Your task to perform on an android device: open chrome privacy settings Image 0: 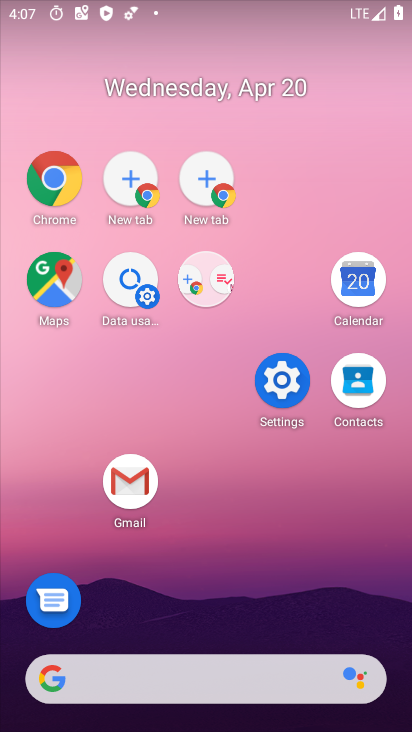
Step 0: click (263, 377)
Your task to perform on an android device: open chrome privacy settings Image 1: 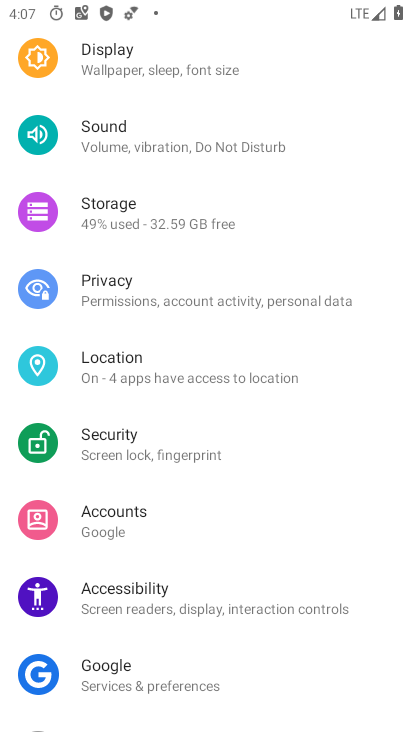
Step 1: drag from (298, 440) to (224, 274)
Your task to perform on an android device: open chrome privacy settings Image 2: 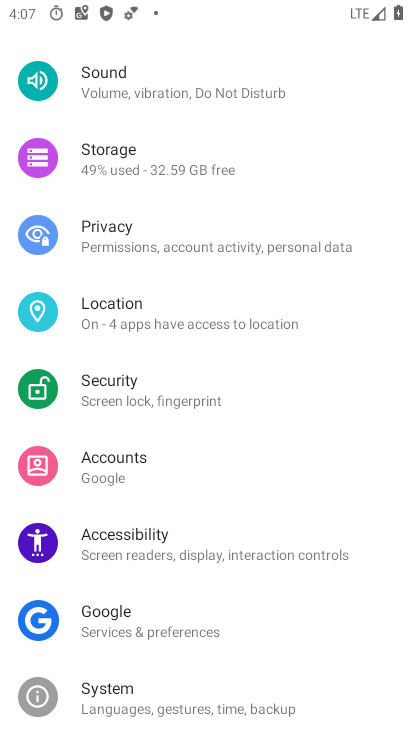
Step 2: drag from (122, 579) to (105, 365)
Your task to perform on an android device: open chrome privacy settings Image 3: 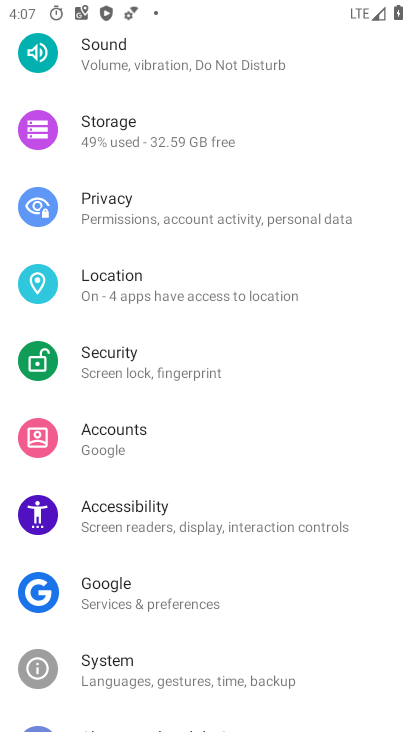
Step 3: press home button
Your task to perform on an android device: open chrome privacy settings Image 4: 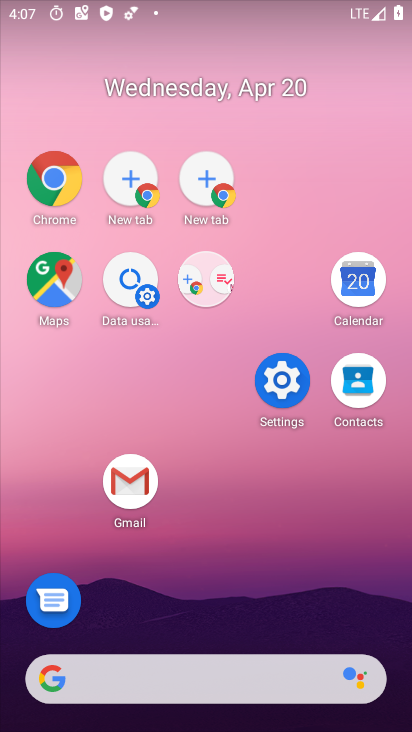
Step 4: click (58, 169)
Your task to perform on an android device: open chrome privacy settings Image 5: 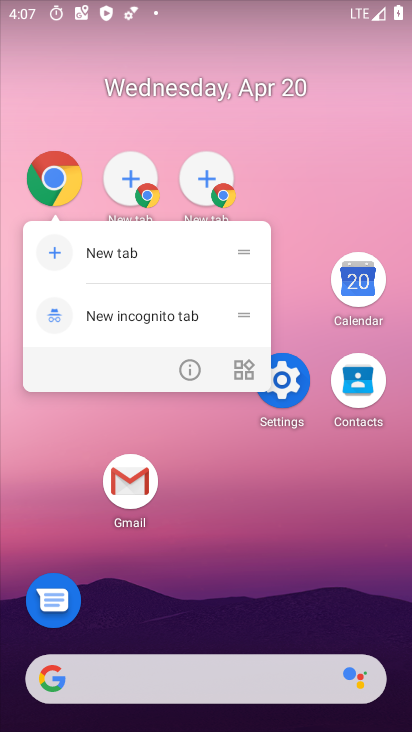
Step 5: click (69, 184)
Your task to perform on an android device: open chrome privacy settings Image 6: 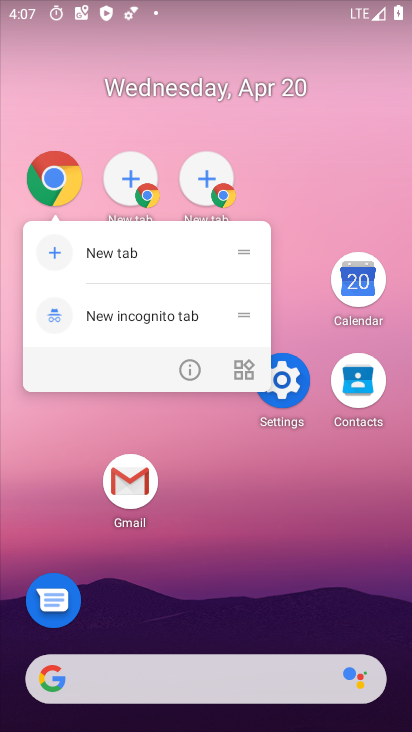
Step 6: click (107, 248)
Your task to perform on an android device: open chrome privacy settings Image 7: 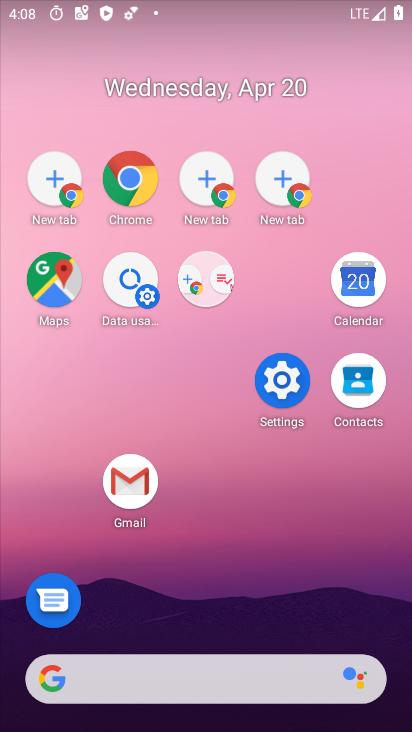
Step 7: click (125, 176)
Your task to perform on an android device: open chrome privacy settings Image 8: 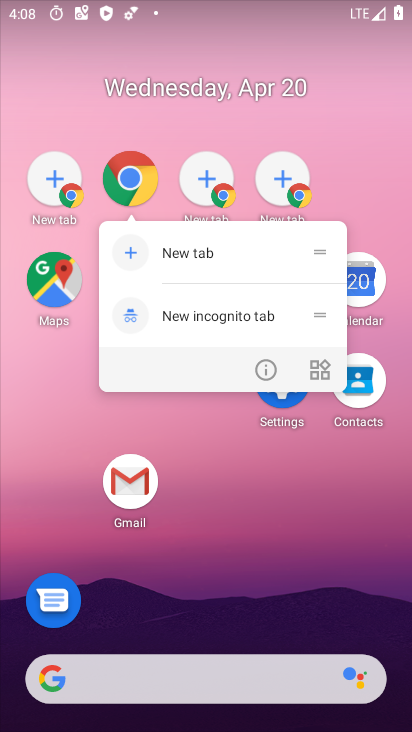
Step 8: click (184, 257)
Your task to perform on an android device: open chrome privacy settings Image 9: 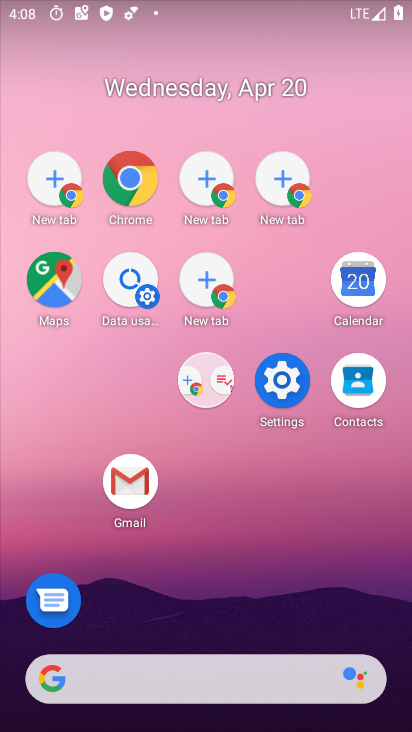
Step 9: click (125, 215)
Your task to perform on an android device: open chrome privacy settings Image 10: 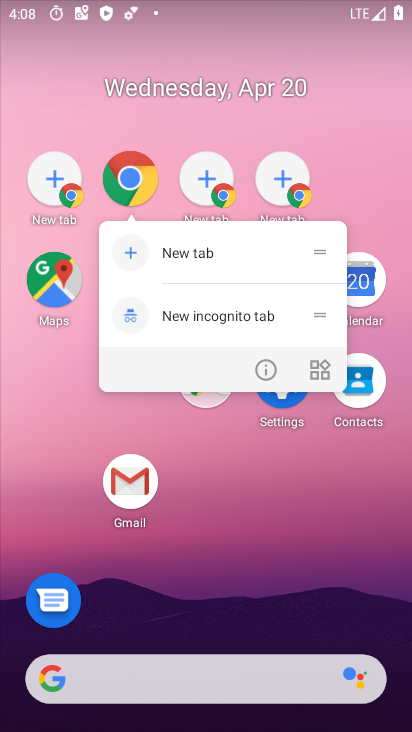
Step 10: click (131, 184)
Your task to perform on an android device: open chrome privacy settings Image 11: 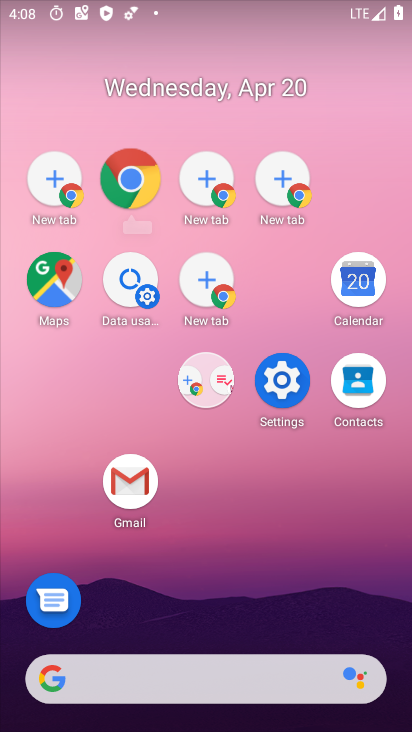
Step 11: click (131, 184)
Your task to perform on an android device: open chrome privacy settings Image 12: 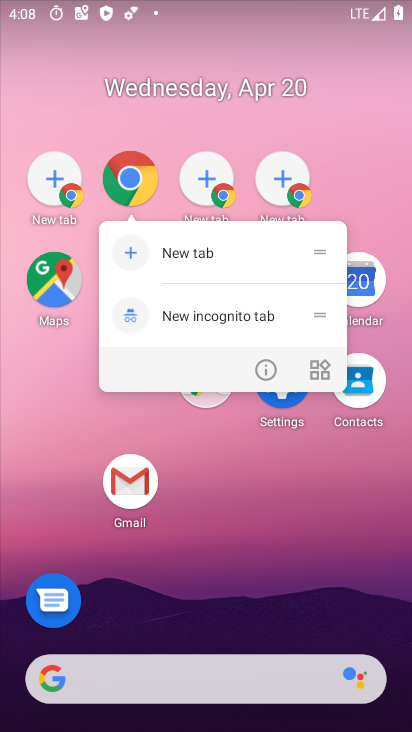
Step 12: click (193, 249)
Your task to perform on an android device: open chrome privacy settings Image 13: 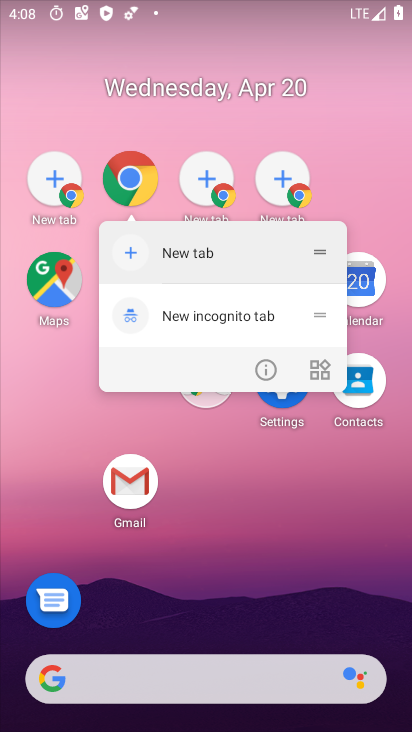
Step 13: click (193, 249)
Your task to perform on an android device: open chrome privacy settings Image 14: 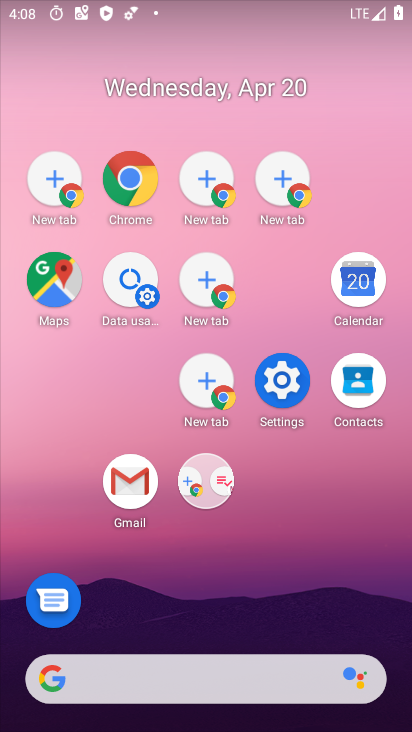
Step 14: drag from (240, 565) to (76, 175)
Your task to perform on an android device: open chrome privacy settings Image 15: 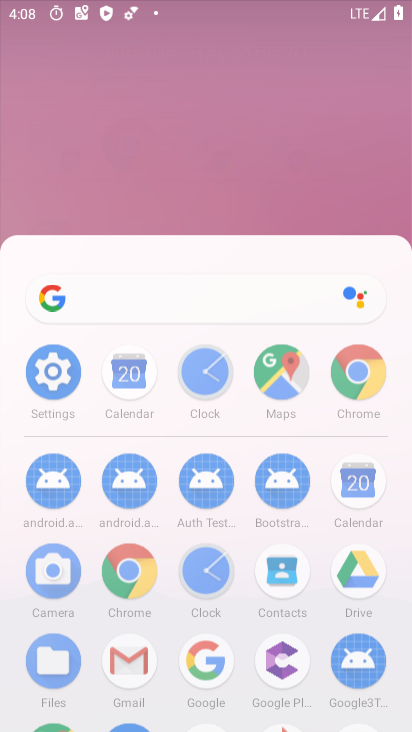
Step 15: drag from (289, 551) to (75, 12)
Your task to perform on an android device: open chrome privacy settings Image 16: 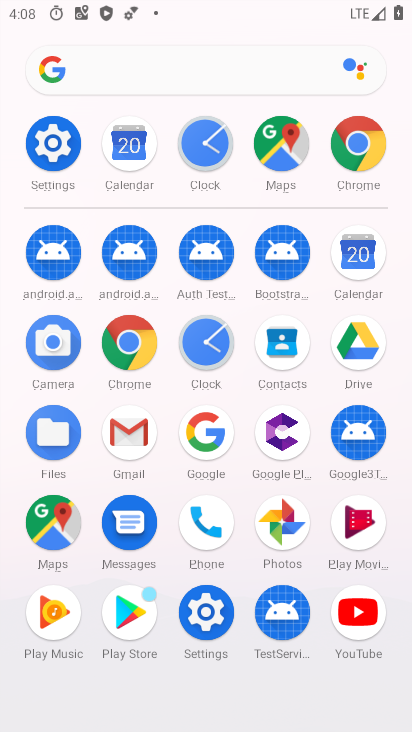
Step 16: click (351, 138)
Your task to perform on an android device: open chrome privacy settings Image 17: 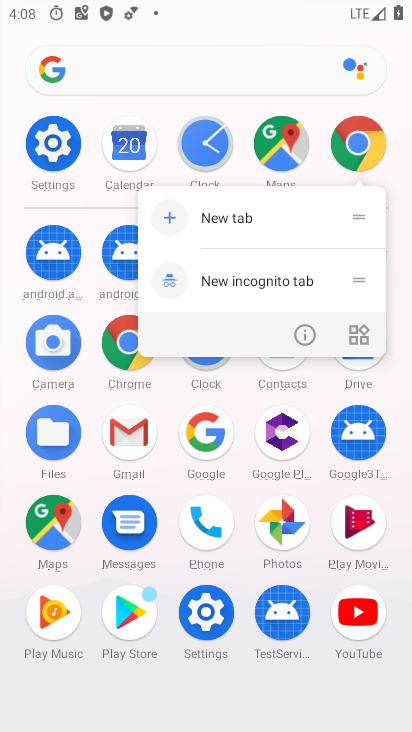
Step 17: click (209, 218)
Your task to perform on an android device: open chrome privacy settings Image 18: 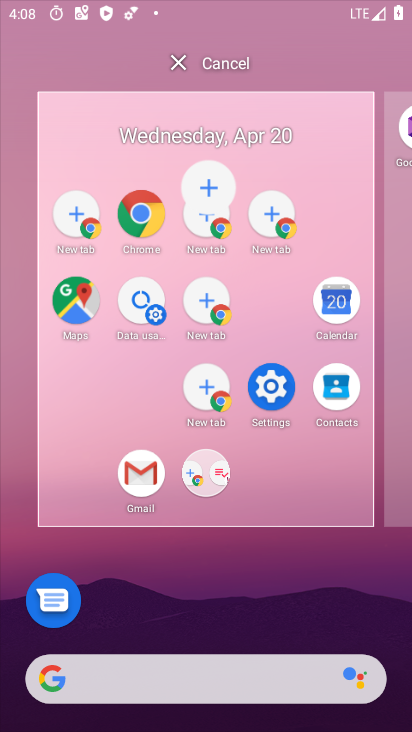
Step 18: click (209, 218)
Your task to perform on an android device: open chrome privacy settings Image 19: 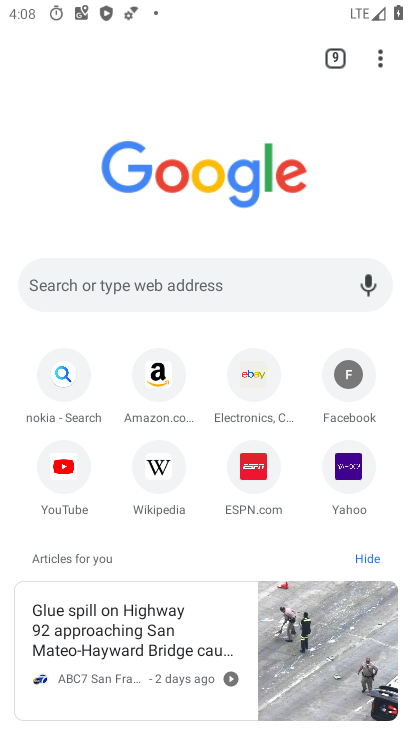
Step 19: task complete